Your task to perform on an android device: turn on sleep mode Image 0: 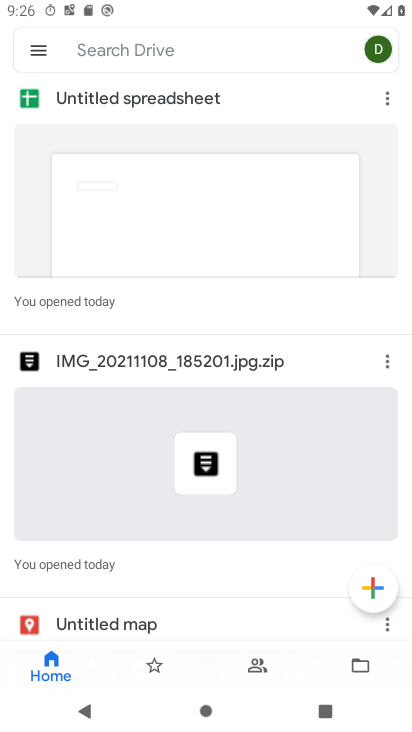
Step 0: press home button
Your task to perform on an android device: turn on sleep mode Image 1: 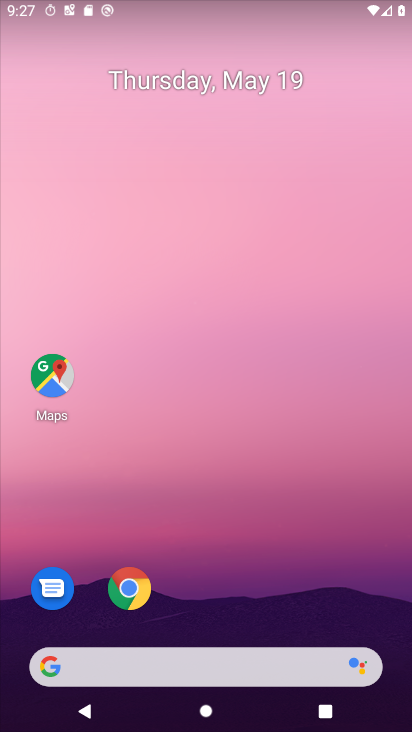
Step 1: drag from (147, 668) to (330, 81)
Your task to perform on an android device: turn on sleep mode Image 2: 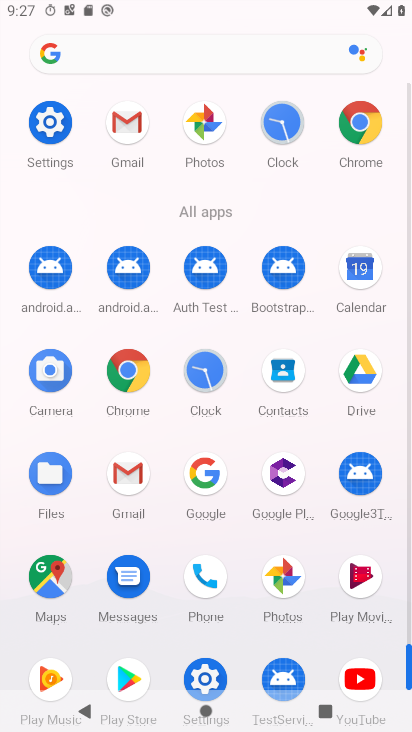
Step 2: click (57, 129)
Your task to perform on an android device: turn on sleep mode Image 3: 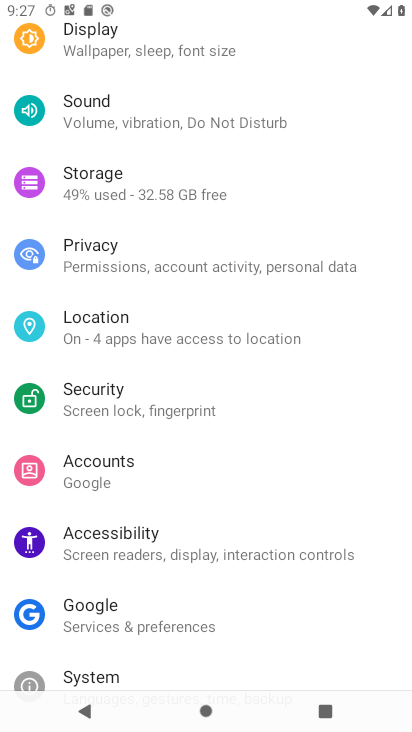
Step 3: click (171, 51)
Your task to perform on an android device: turn on sleep mode Image 4: 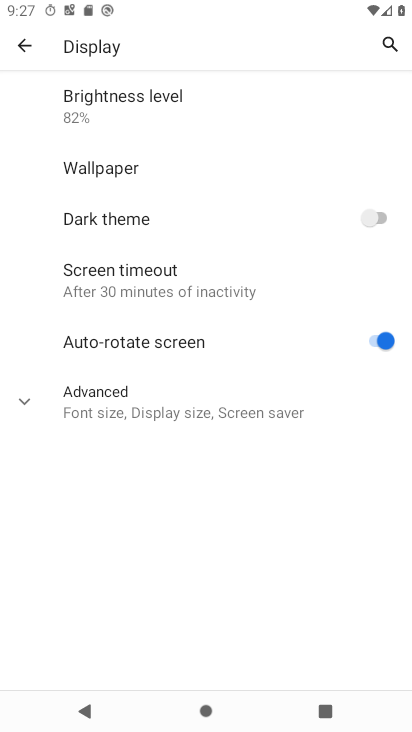
Step 4: task complete